Your task to perform on an android device: toggle notifications settings in the gmail app Image 0: 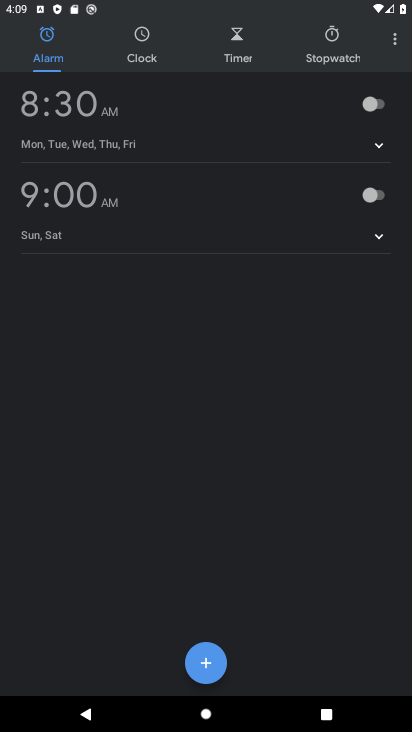
Step 0: press home button
Your task to perform on an android device: toggle notifications settings in the gmail app Image 1: 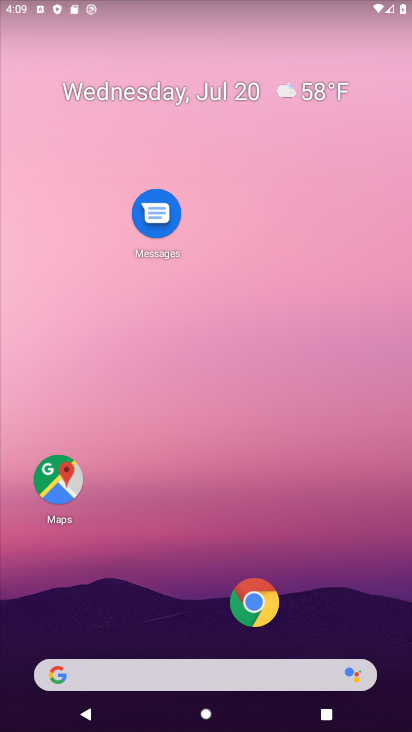
Step 1: drag from (199, 573) to (187, 206)
Your task to perform on an android device: toggle notifications settings in the gmail app Image 2: 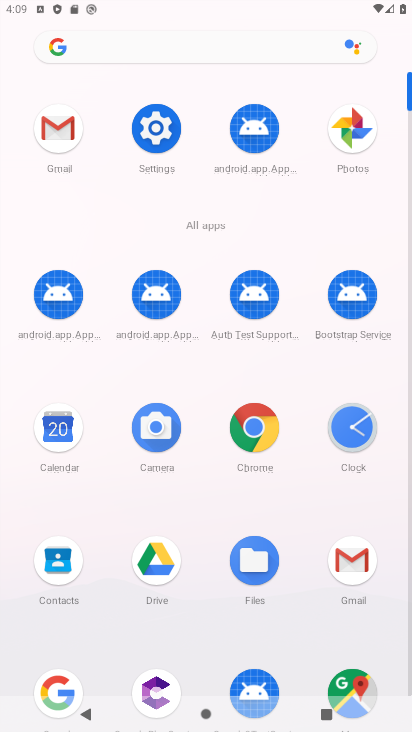
Step 2: click (178, 346)
Your task to perform on an android device: toggle notifications settings in the gmail app Image 3: 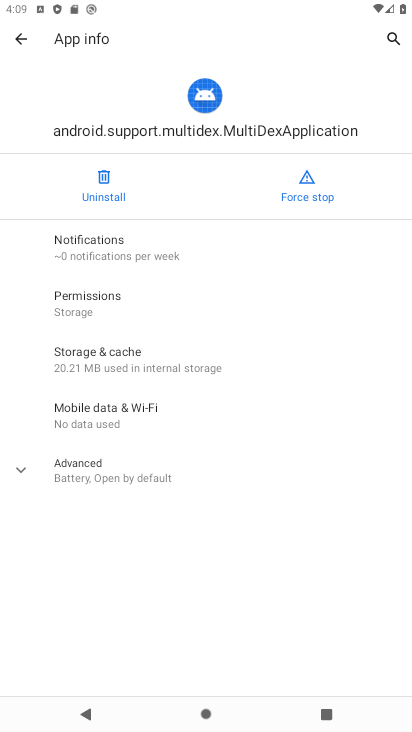
Step 3: click (22, 35)
Your task to perform on an android device: toggle notifications settings in the gmail app Image 4: 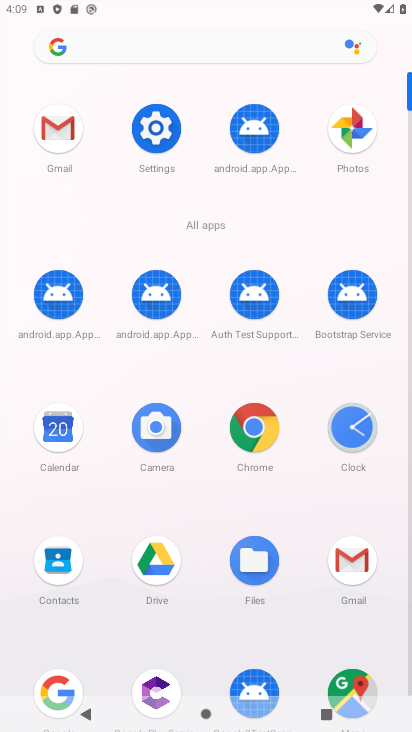
Step 4: drag from (221, 506) to (243, 255)
Your task to perform on an android device: toggle notifications settings in the gmail app Image 5: 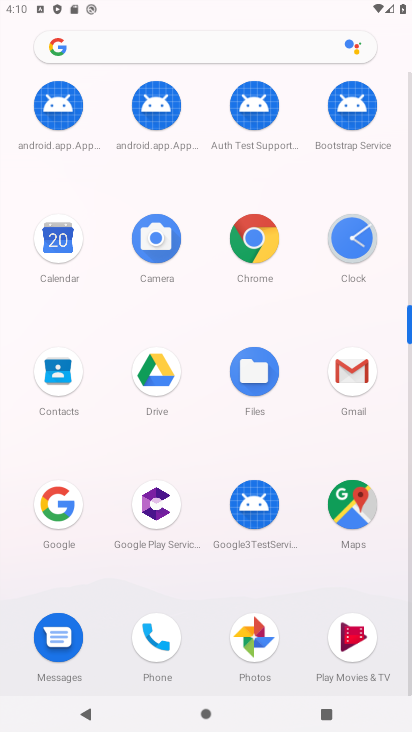
Step 5: click (164, 627)
Your task to perform on an android device: toggle notifications settings in the gmail app Image 6: 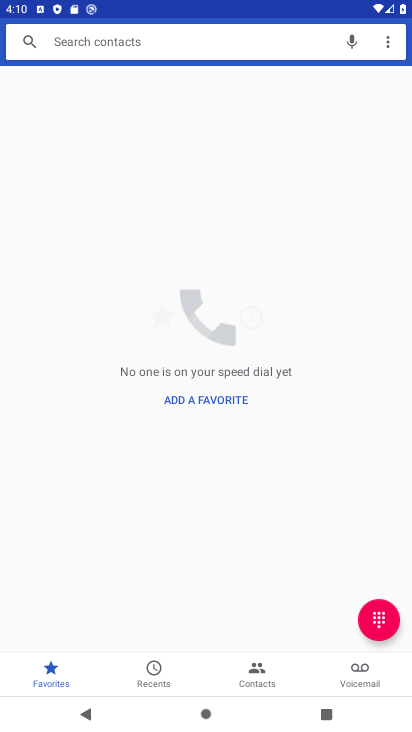
Step 6: press home button
Your task to perform on an android device: toggle notifications settings in the gmail app Image 7: 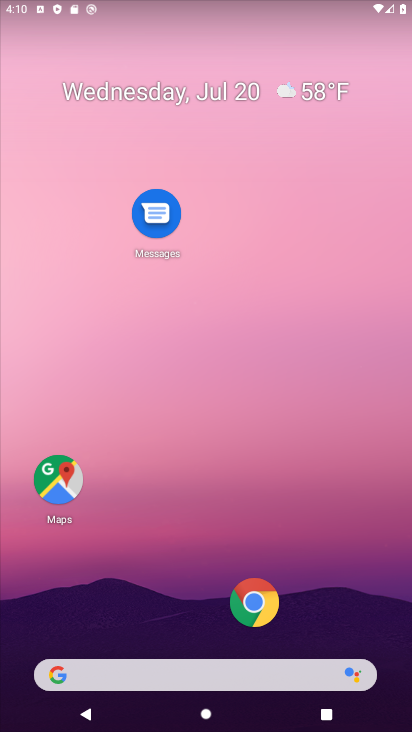
Step 7: drag from (204, 263) to (246, 33)
Your task to perform on an android device: toggle notifications settings in the gmail app Image 8: 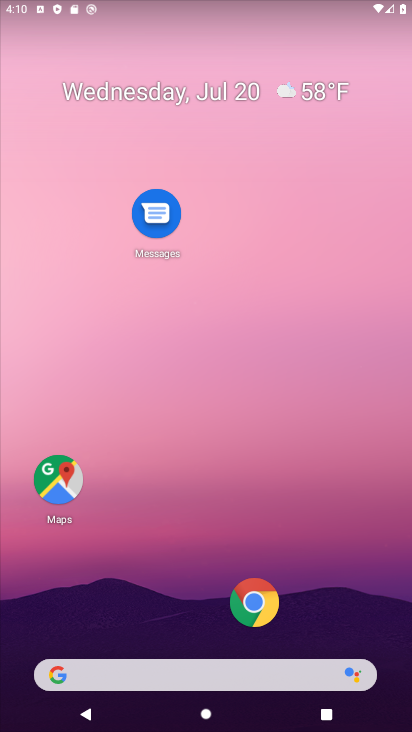
Step 8: drag from (188, 424) to (243, 141)
Your task to perform on an android device: toggle notifications settings in the gmail app Image 9: 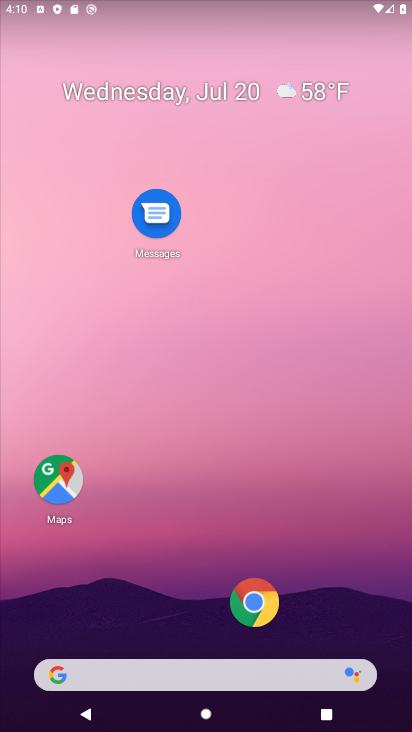
Step 9: drag from (187, 572) to (242, 21)
Your task to perform on an android device: toggle notifications settings in the gmail app Image 10: 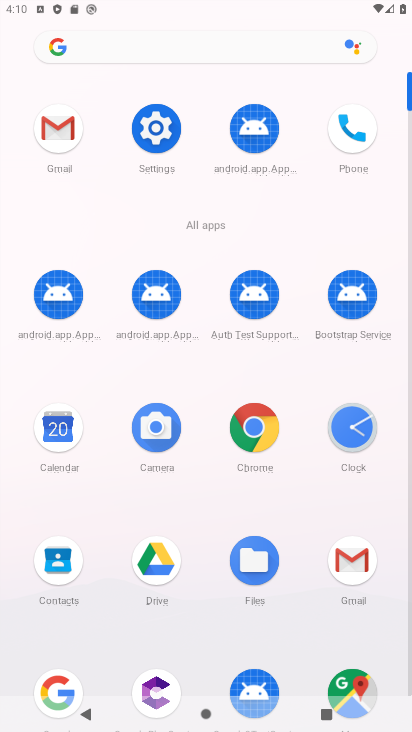
Step 10: click (151, 128)
Your task to perform on an android device: toggle notifications settings in the gmail app Image 11: 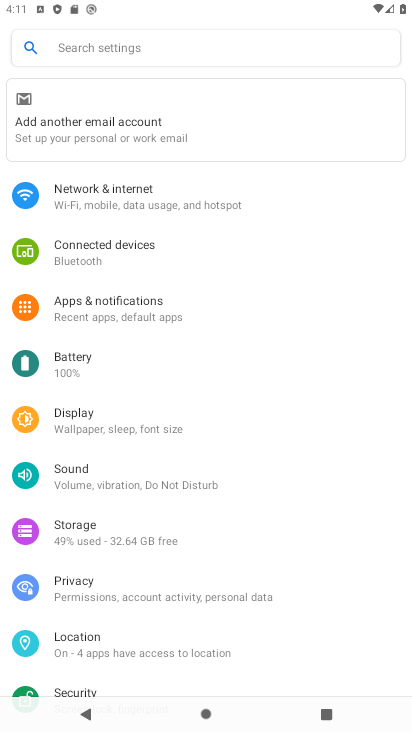
Step 11: click (124, 315)
Your task to perform on an android device: toggle notifications settings in the gmail app Image 12: 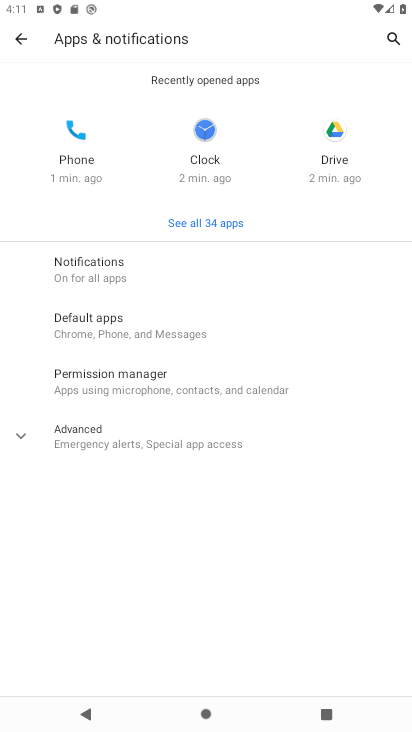
Step 12: click (94, 270)
Your task to perform on an android device: toggle notifications settings in the gmail app Image 13: 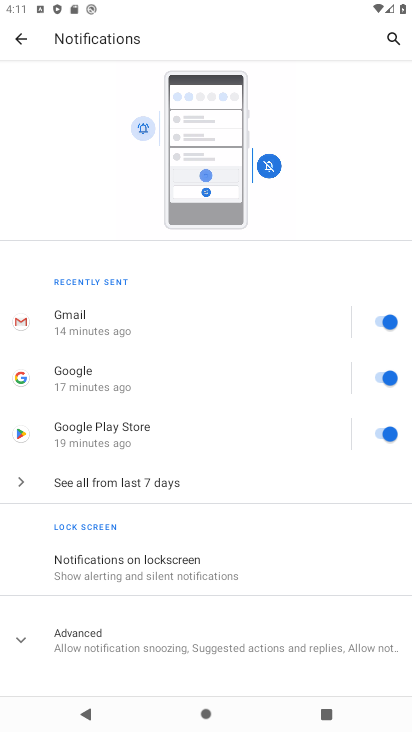
Step 13: drag from (121, 517) to (159, 325)
Your task to perform on an android device: toggle notifications settings in the gmail app Image 14: 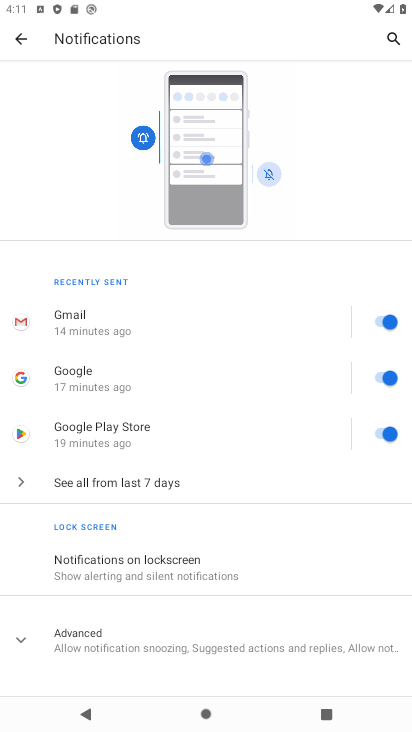
Step 14: click (107, 565)
Your task to perform on an android device: toggle notifications settings in the gmail app Image 15: 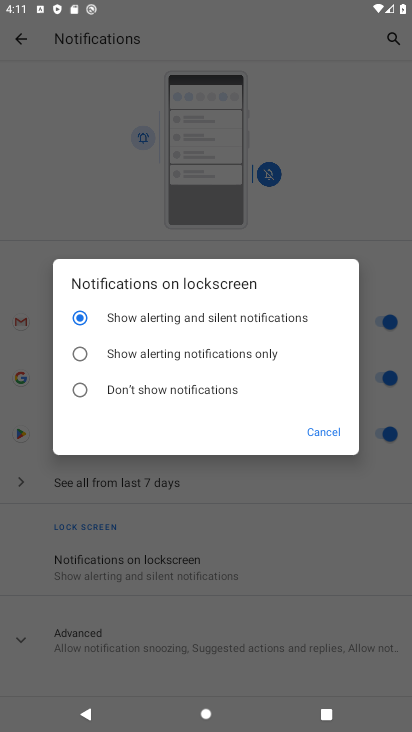
Step 15: click (80, 395)
Your task to perform on an android device: toggle notifications settings in the gmail app Image 16: 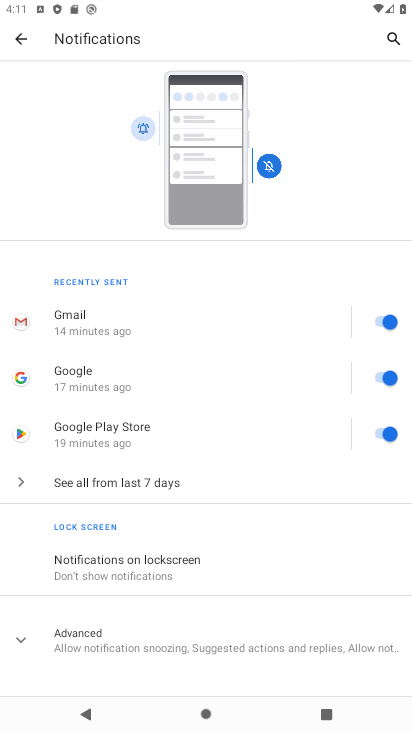
Step 16: task complete